Your task to perform on an android device: open a new tab in the chrome app Image 0: 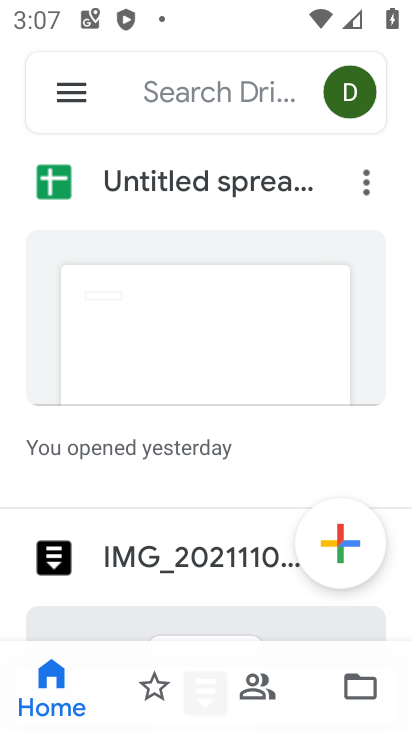
Step 0: press home button
Your task to perform on an android device: open a new tab in the chrome app Image 1: 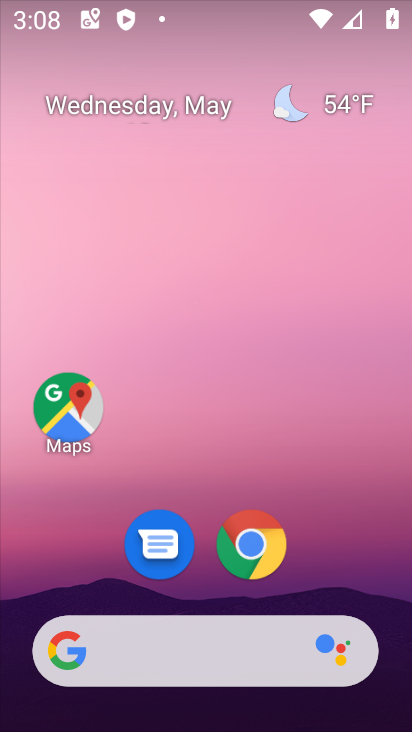
Step 1: click (226, 564)
Your task to perform on an android device: open a new tab in the chrome app Image 2: 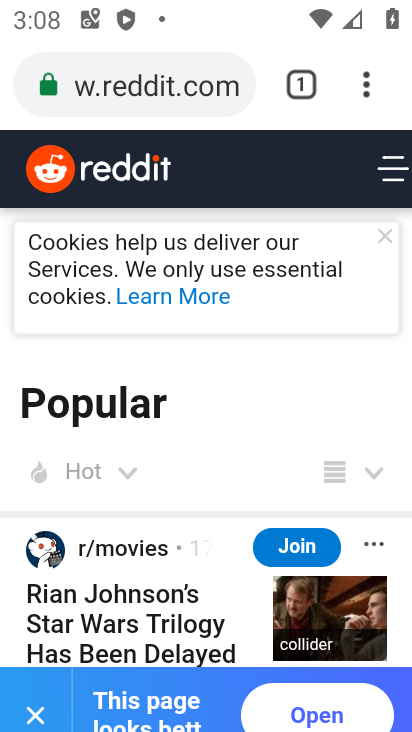
Step 2: click (307, 79)
Your task to perform on an android device: open a new tab in the chrome app Image 3: 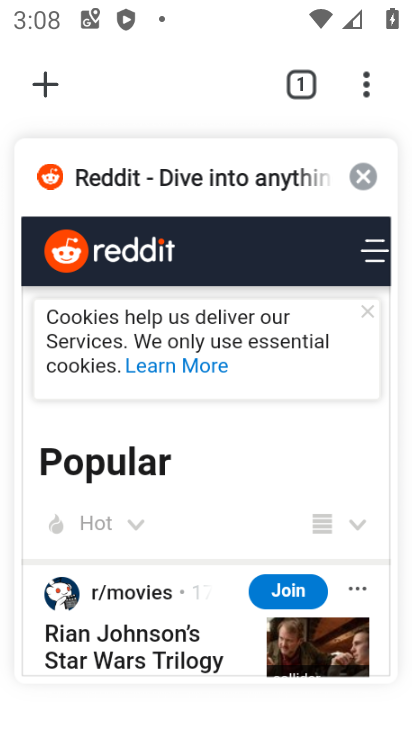
Step 3: click (34, 95)
Your task to perform on an android device: open a new tab in the chrome app Image 4: 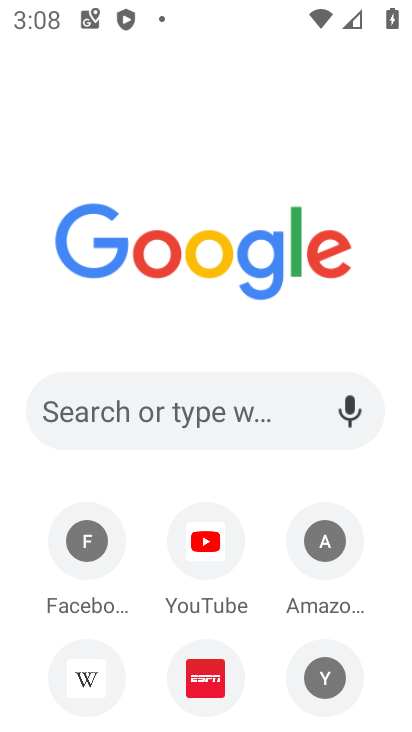
Step 4: task complete